Your task to perform on an android device: Open Wikipedia Image 0: 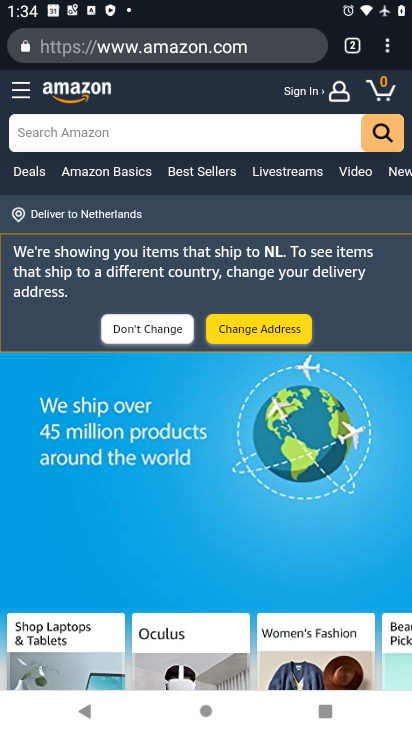
Step 0: press home button
Your task to perform on an android device: Open Wikipedia Image 1: 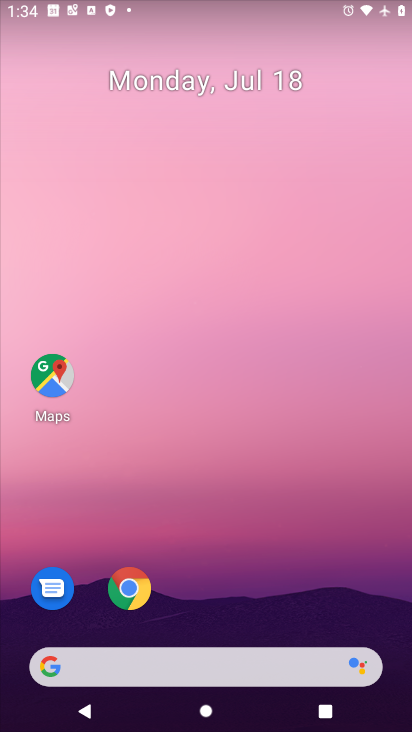
Step 1: drag from (256, 643) to (281, 64)
Your task to perform on an android device: Open Wikipedia Image 2: 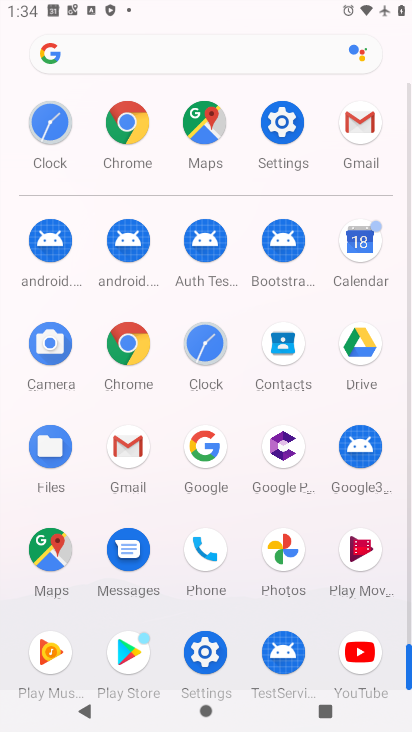
Step 2: click (147, 124)
Your task to perform on an android device: Open Wikipedia Image 3: 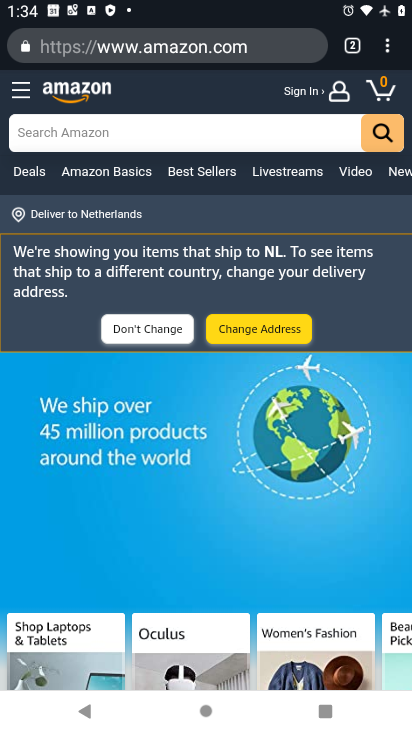
Step 3: click (281, 58)
Your task to perform on an android device: Open Wikipedia Image 4: 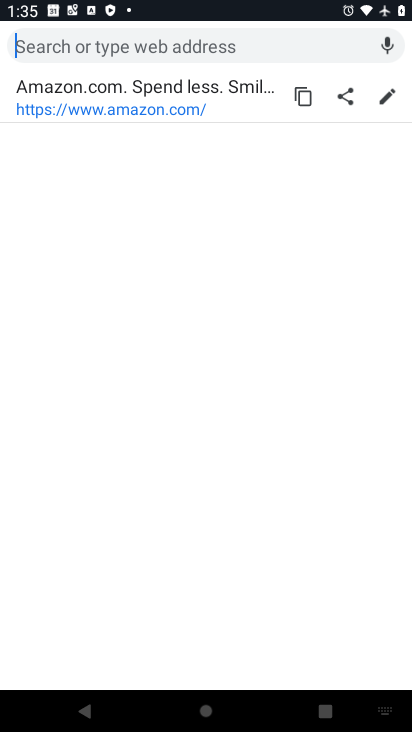
Step 4: type "wikipedia"
Your task to perform on an android device: Open Wikipedia Image 5: 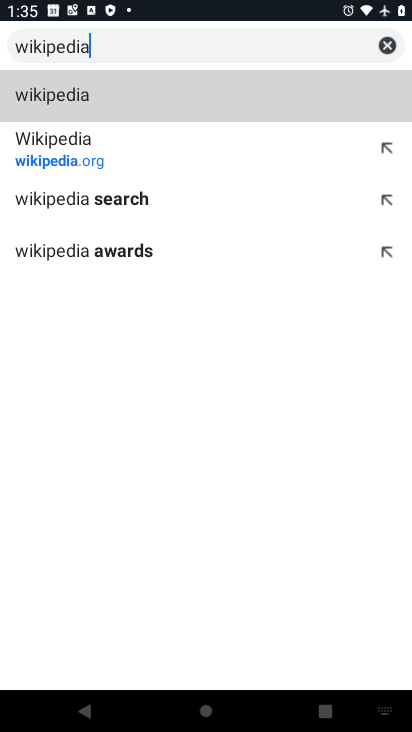
Step 5: click (175, 137)
Your task to perform on an android device: Open Wikipedia Image 6: 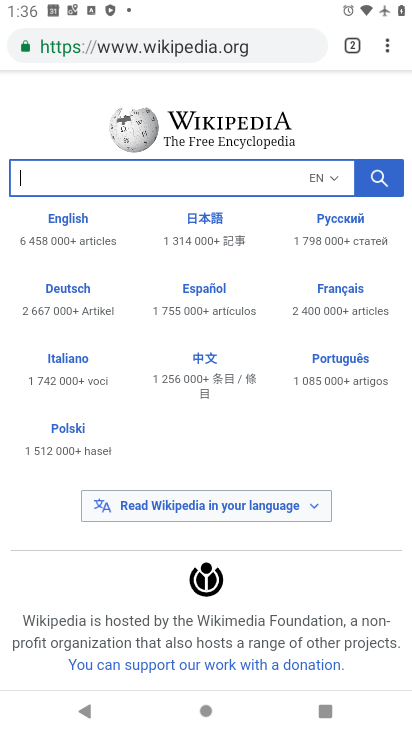
Step 6: task complete